Your task to perform on an android device: toggle javascript in the chrome app Image 0: 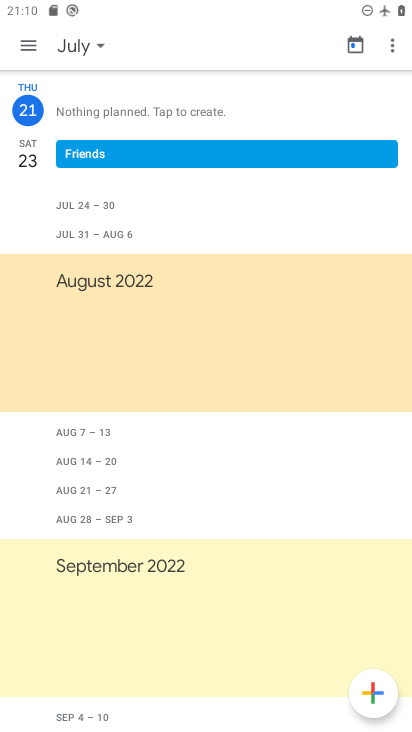
Step 0: press home button
Your task to perform on an android device: toggle javascript in the chrome app Image 1: 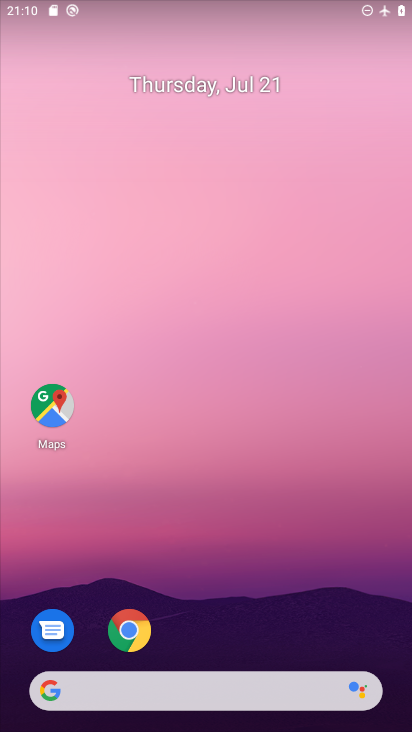
Step 1: drag from (270, 585) to (263, 92)
Your task to perform on an android device: toggle javascript in the chrome app Image 2: 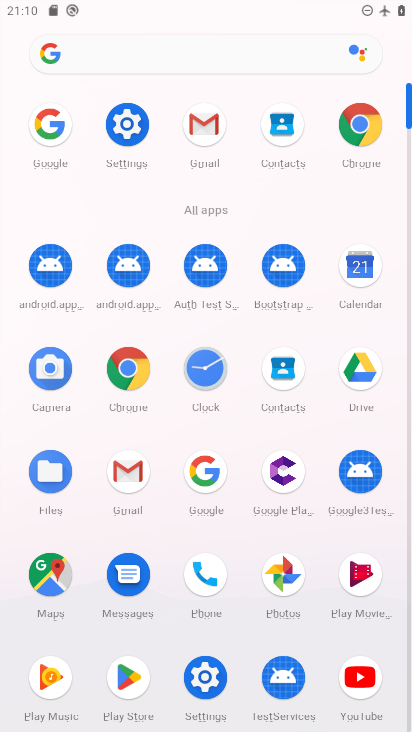
Step 2: click (357, 124)
Your task to perform on an android device: toggle javascript in the chrome app Image 3: 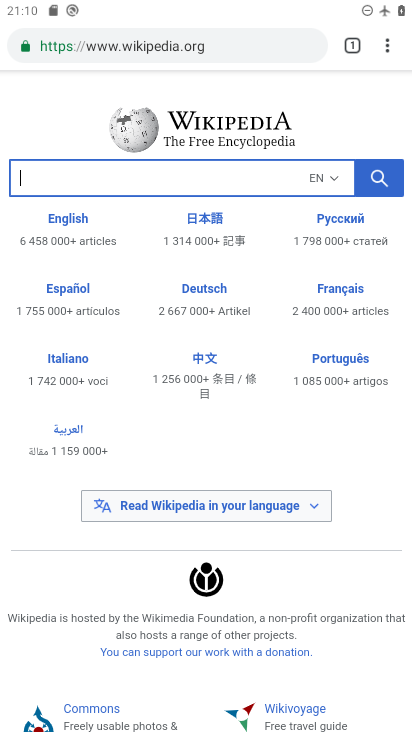
Step 3: click (387, 37)
Your task to perform on an android device: toggle javascript in the chrome app Image 4: 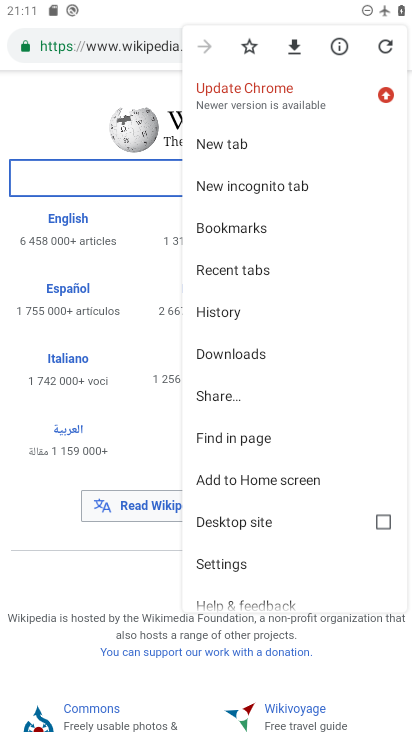
Step 4: click (226, 569)
Your task to perform on an android device: toggle javascript in the chrome app Image 5: 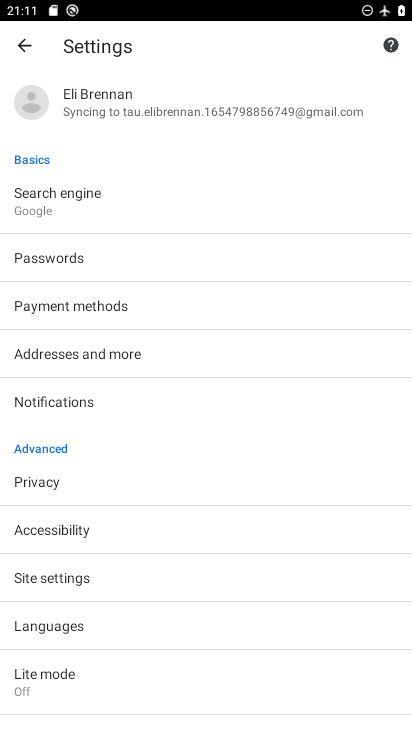
Step 5: click (79, 585)
Your task to perform on an android device: toggle javascript in the chrome app Image 6: 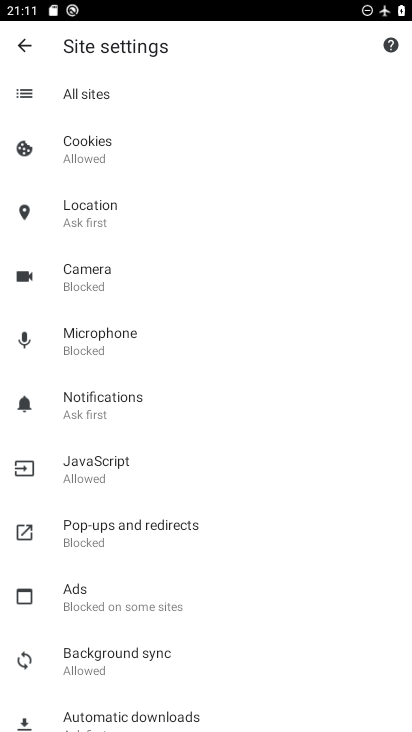
Step 6: click (108, 464)
Your task to perform on an android device: toggle javascript in the chrome app Image 7: 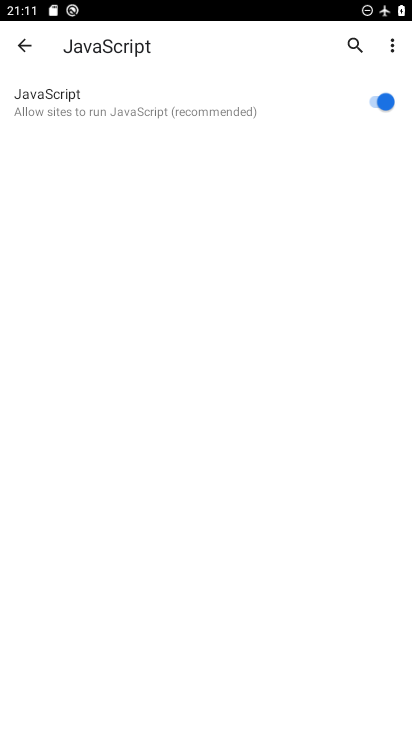
Step 7: click (369, 98)
Your task to perform on an android device: toggle javascript in the chrome app Image 8: 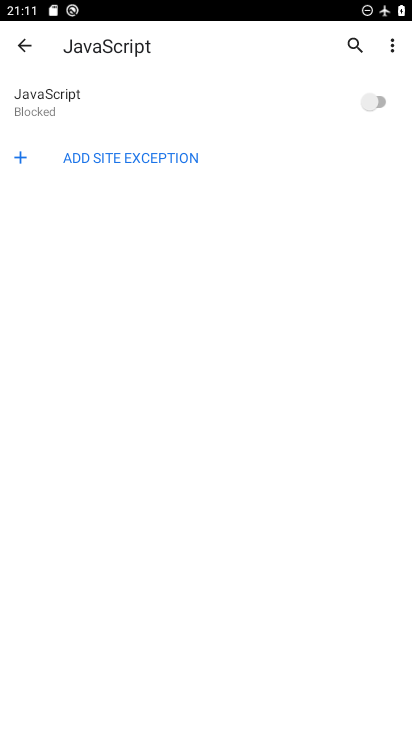
Step 8: task complete